Your task to perform on an android device: check the backup settings in the google photos Image 0: 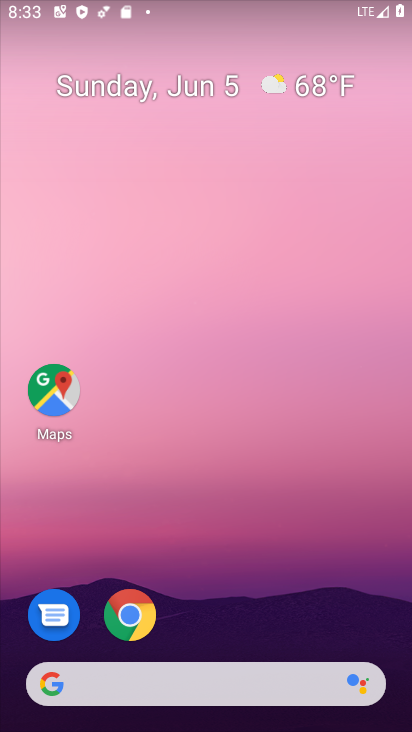
Step 0: drag from (166, 667) to (211, 312)
Your task to perform on an android device: check the backup settings in the google photos Image 1: 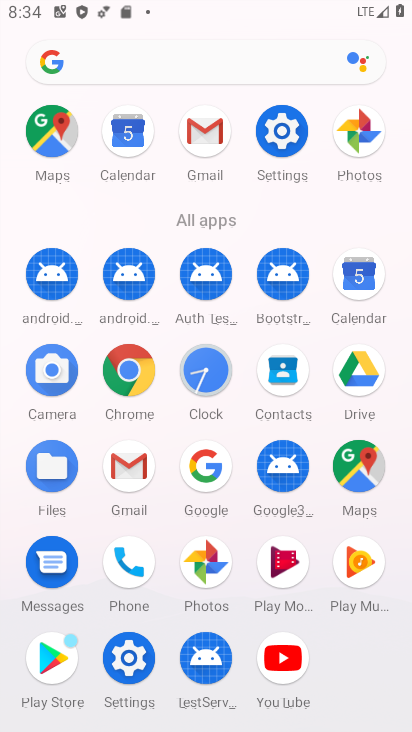
Step 1: click (208, 572)
Your task to perform on an android device: check the backup settings in the google photos Image 2: 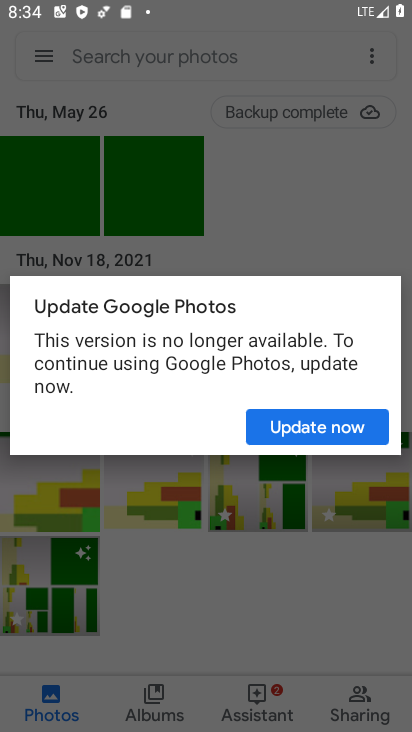
Step 2: click (277, 430)
Your task to perform on an android device: check the backup settings in the google photos Image 3: 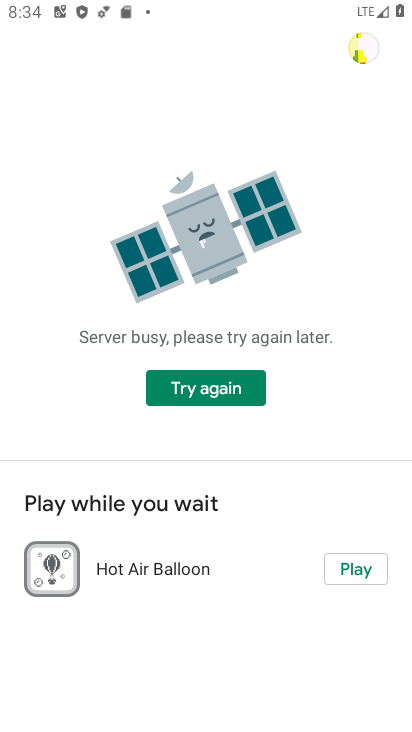
Step 3: task complete